Your task to perform on an android device: Open Yahoo.com Image 0: 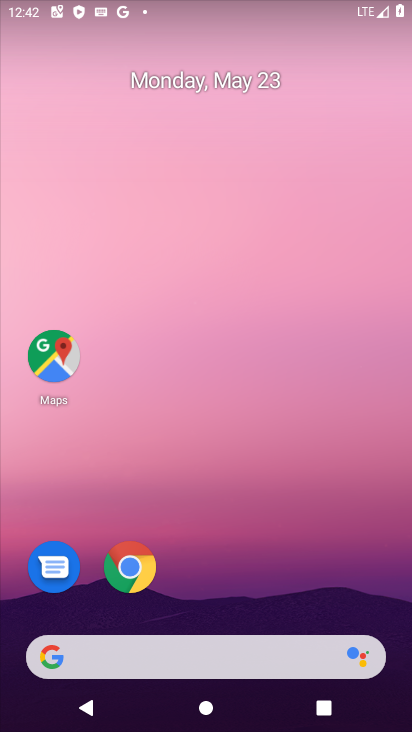
Step 0: drag from (238, 592) to (194, 116)
Your task to perform on an android device: Open Yahoo.com Image 1: 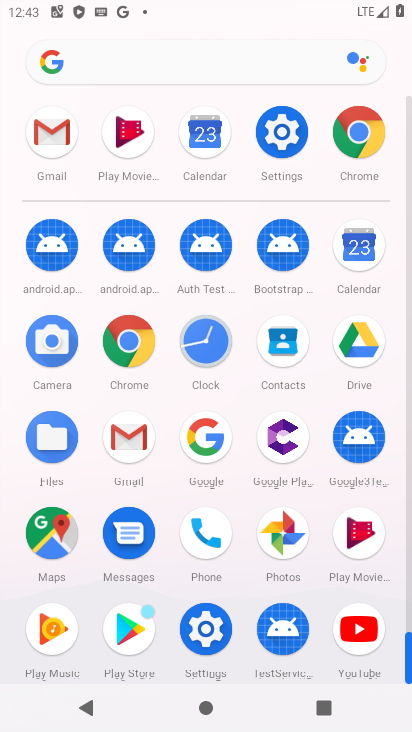
Step 1: click (356, 146)
Your task to perform on an android device: Open Yahoo.com Image 2: 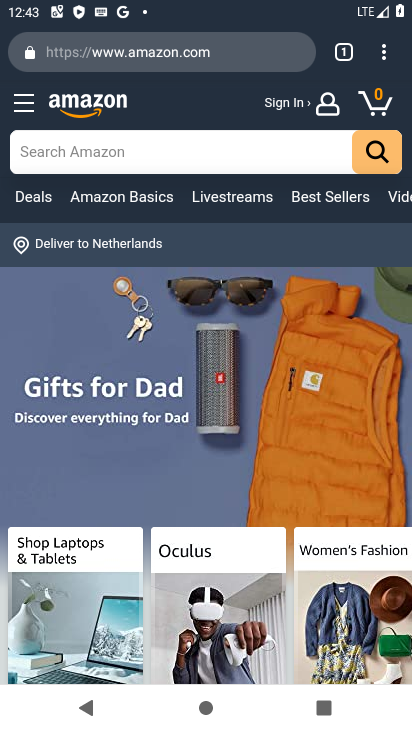
Step 2: click (353, 55)
Your task to perform on an android device: Open Yahoo.com Image 3: 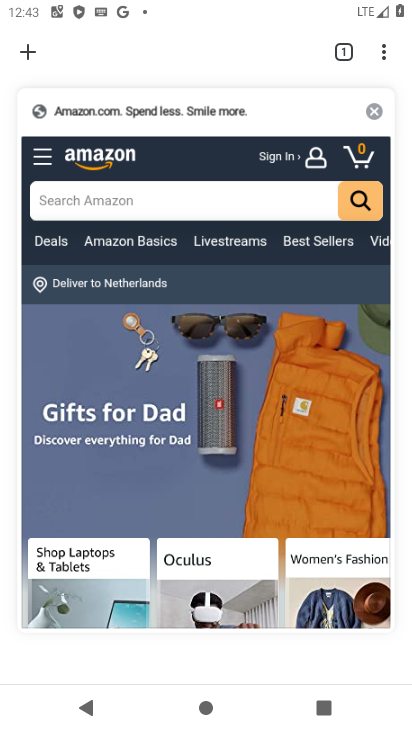
Step 3: click (25, 54)
Your task to perform on an android device: Open Yahoo.com Image 4: 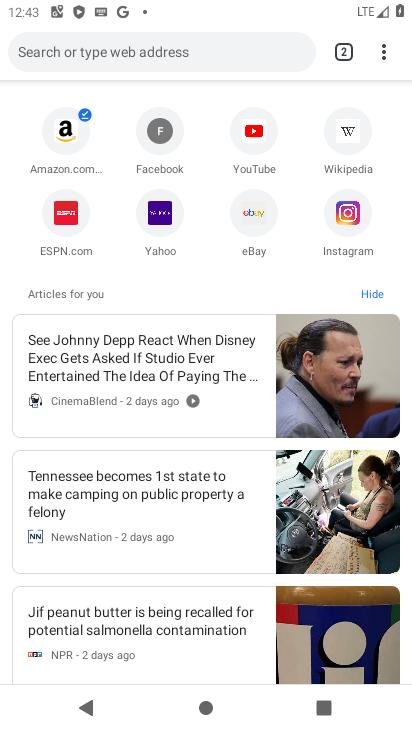
Step 4: click (171, 221)
Your task to perform on an android device: Open Yahoo.com Image 5: 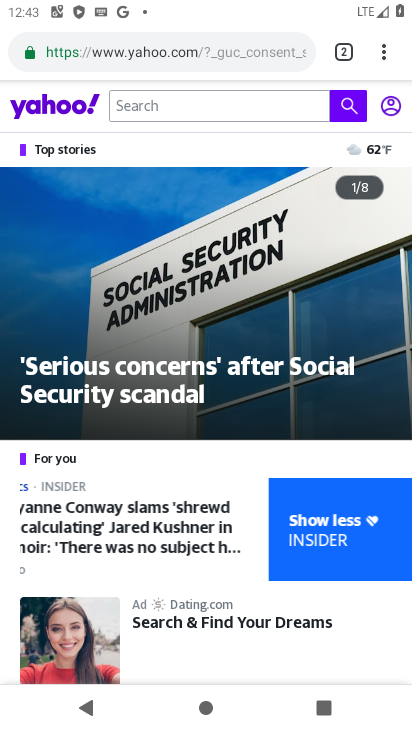
Step 5: task complete